Your task to perform on an android device: make emails show in primary in the gmail app Image 0: 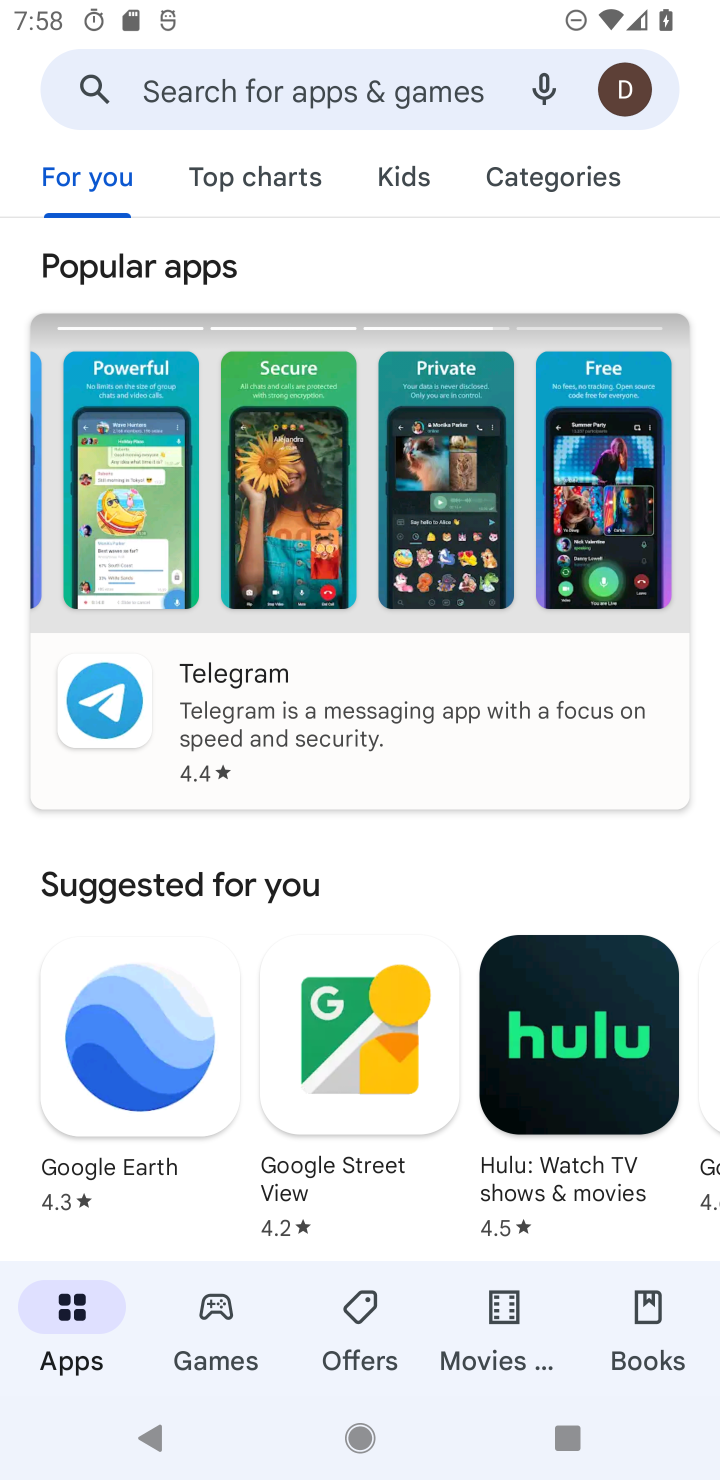
Step 0: press home button
Your task to perform on an android device: make emails show in primary in the gmail app Image 1: 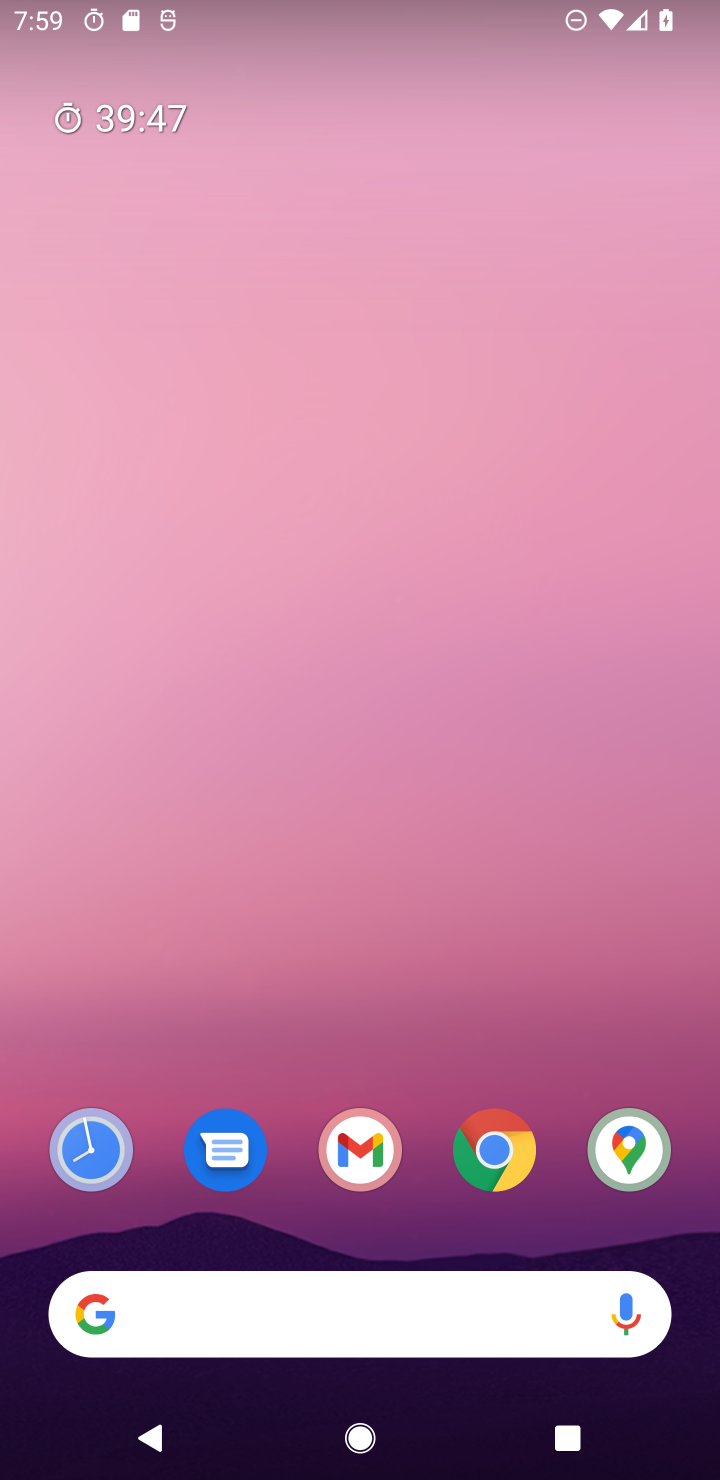
Step 1: drag from (358, 1290) to (266, 149)
Your task to perform on an android device: make emails show in primary in the gmail app Image 2: 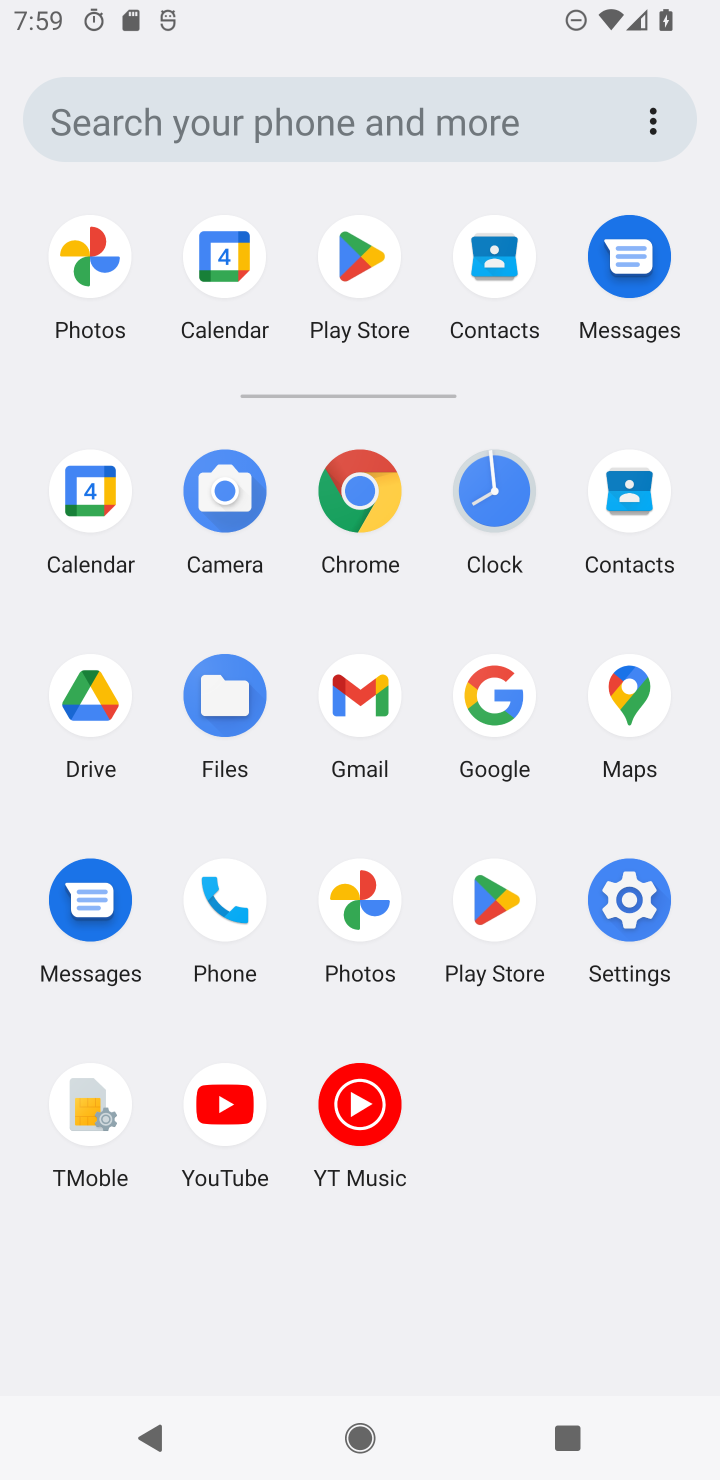
Step 2: click (373, 668)
Your task to perform on an android device: make emails show in primary in the gmail app Image 3: 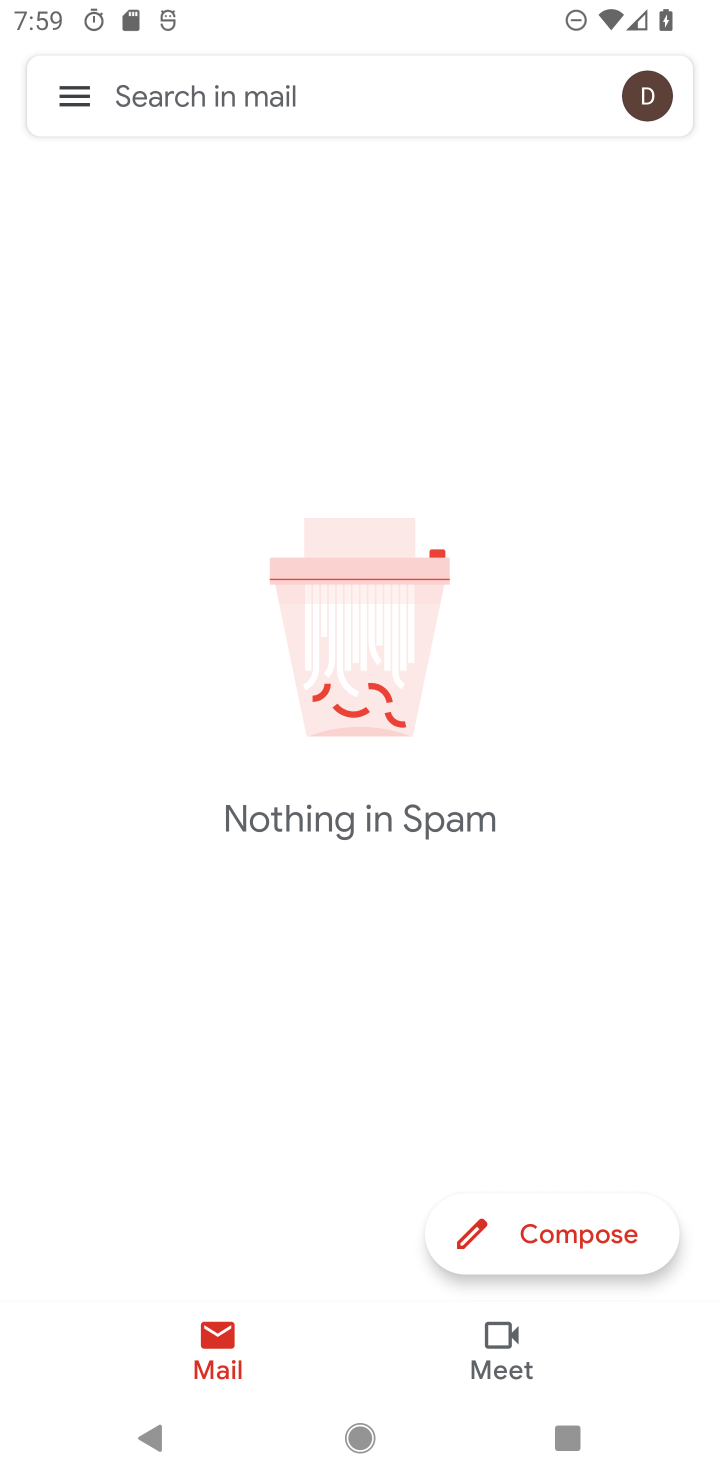
Step 3: click (85, 94)
Your task to perform on an android device: make emails show in primary in the gmail app Image 4: 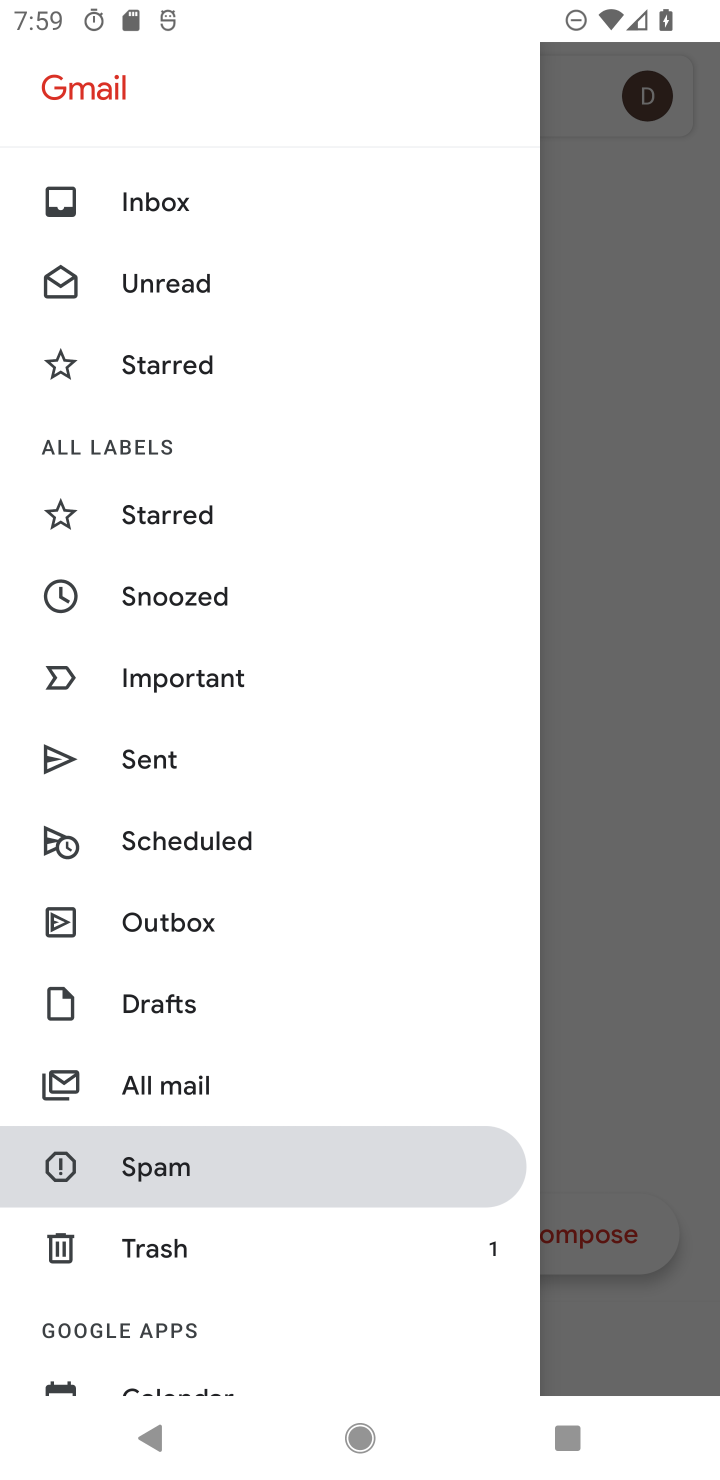
Step 4: drag from (351, 1267) to (323, 370)
Your task to perform on an android device: make emails show in primary in the gmail app Image 5: 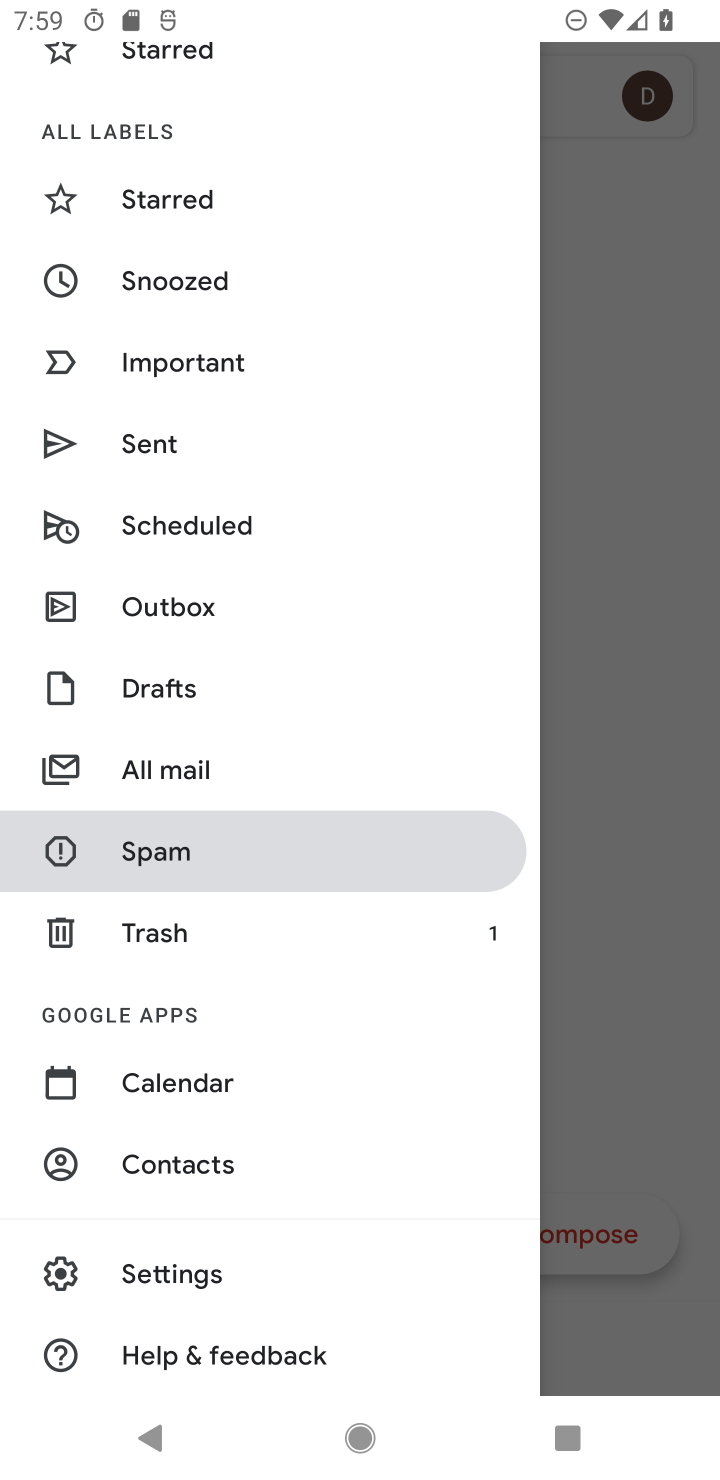
Step 5: click (135, 1268)
Your task to perform on an android device: make emails show in primary in the gmail app Image 6: 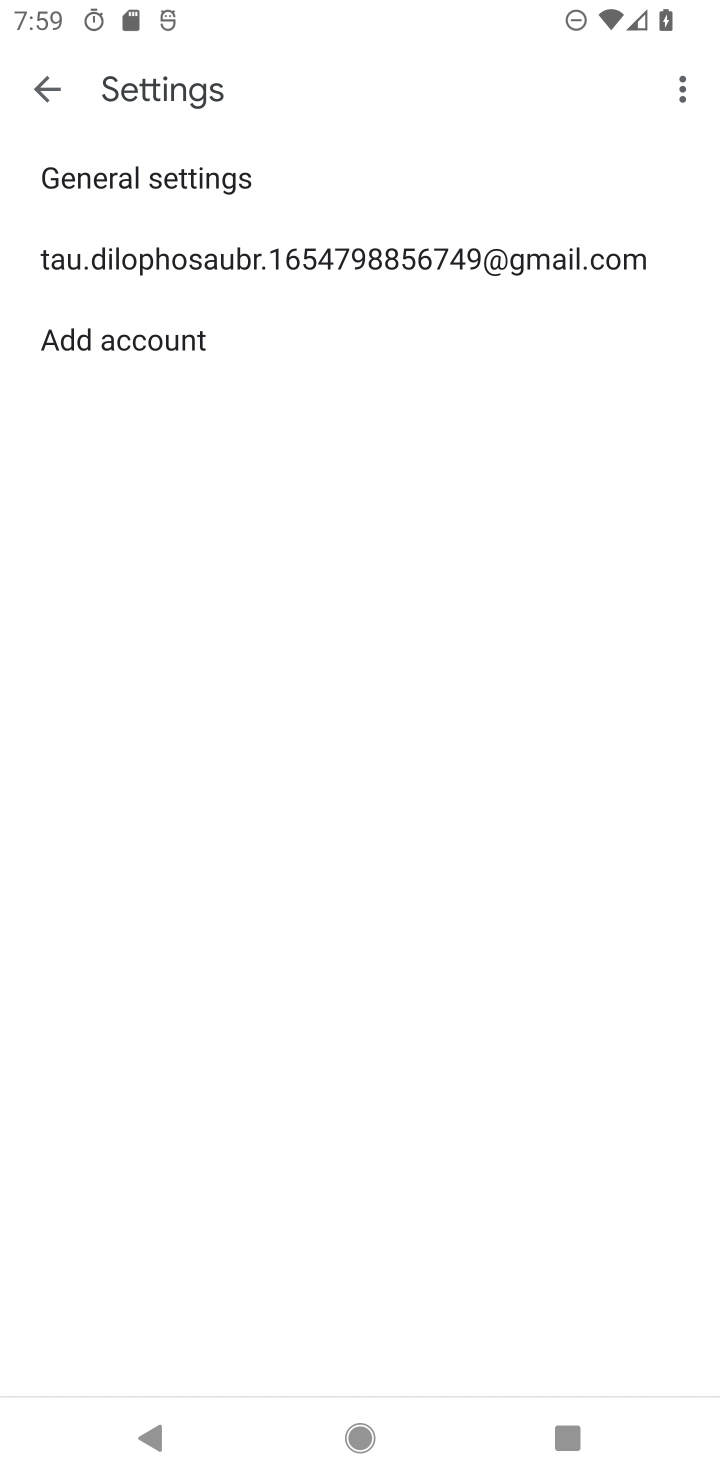
Step 6: click (375, 245)
Your task to perform on an android device: make emails show in primary in the gmail app Image 7: 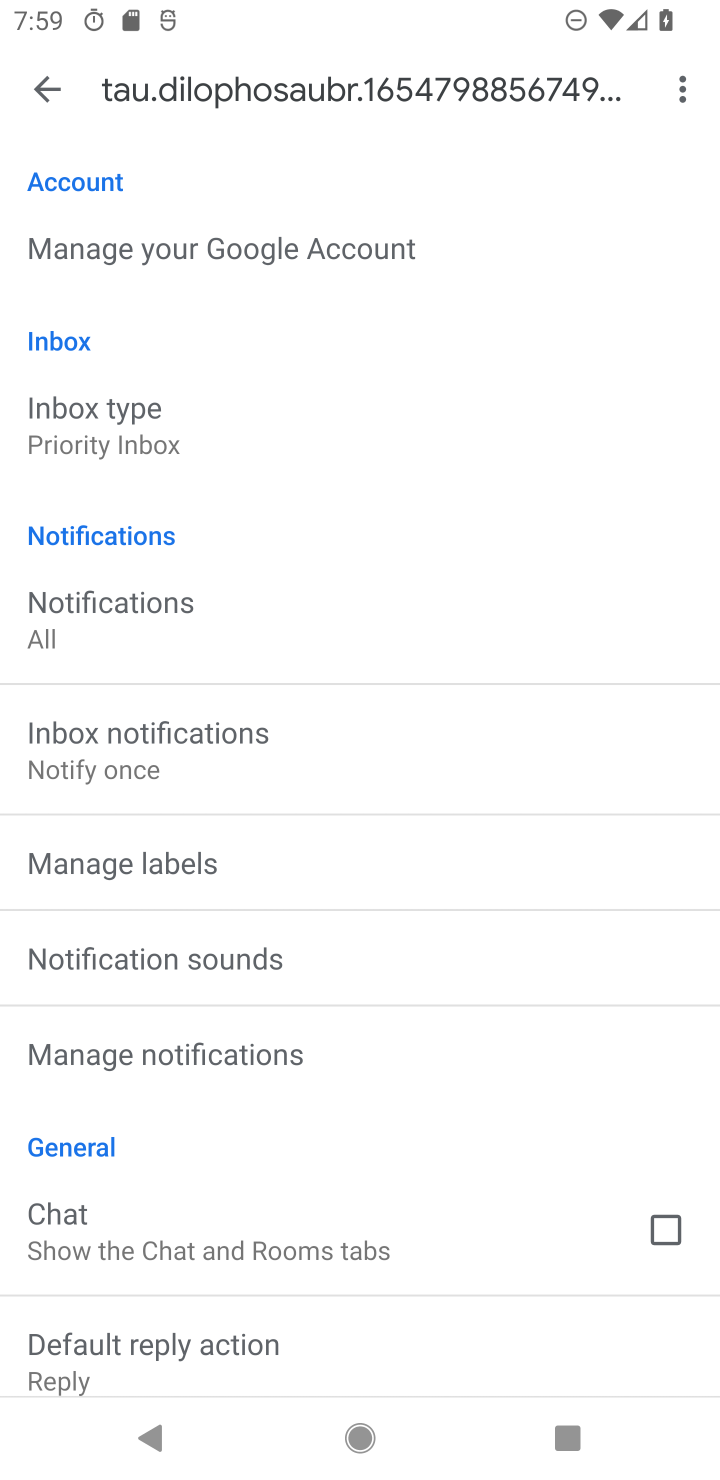
Step 7: click (145, 441)
Your task to perform on an android device: make emails show in primary in the gmail app Image 8: 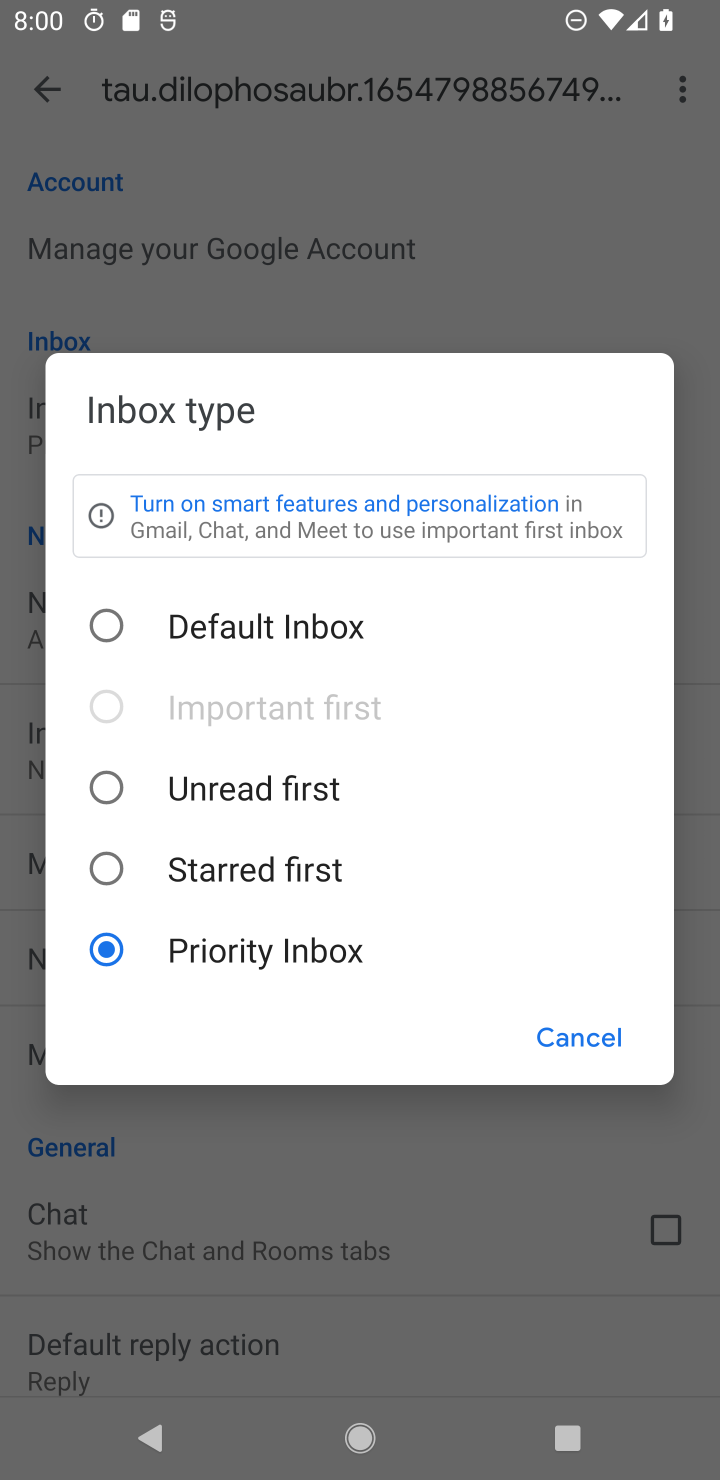
Step 8: click (104, 620)
Your task to perform on an android device: make emails show in primary in the gmail app Image 9: 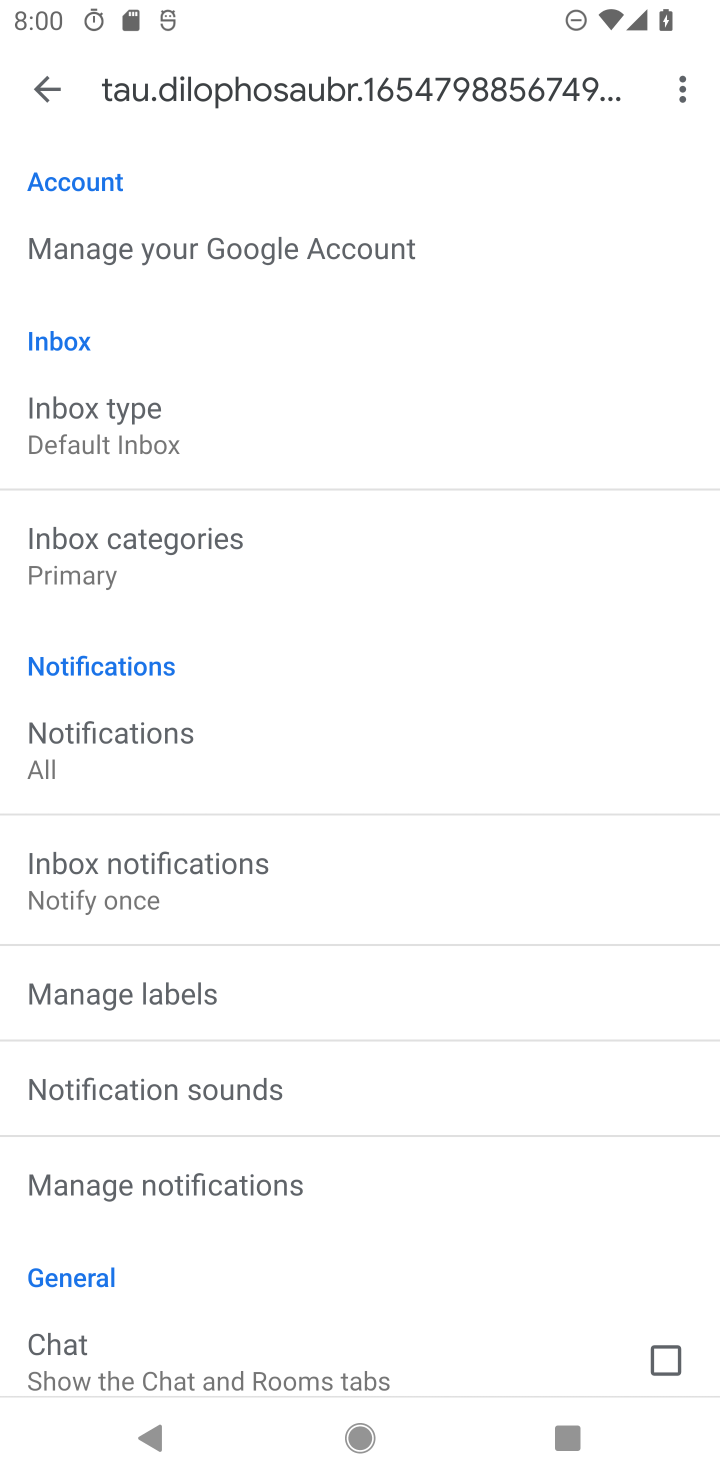
Step 9: task complete